Your task to perform on an android device: Go to privacy settings Image 0: 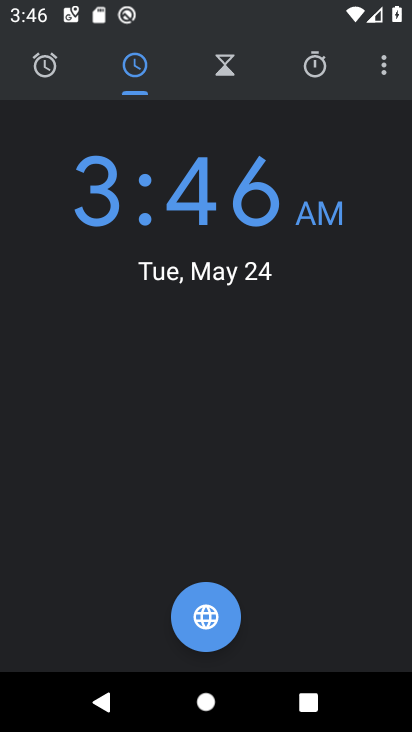
Step 0: press home button
Your task to perform on an android device: Go to privacy settings Image 1: 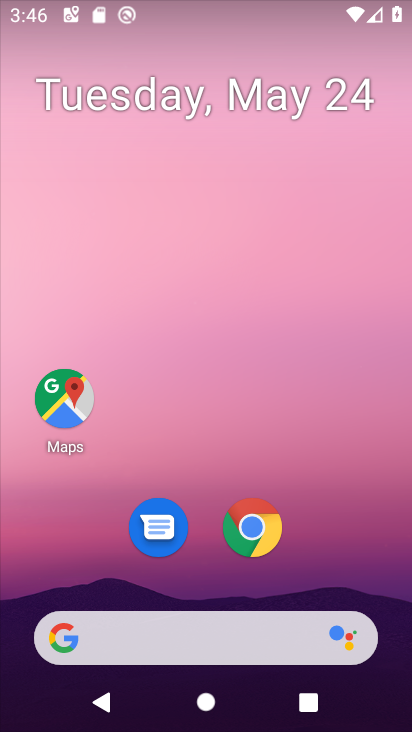
Step 1: drag from (350, 598) to (366, 4)
Your task to perform on an android device: Go to privacy settings Image 2: 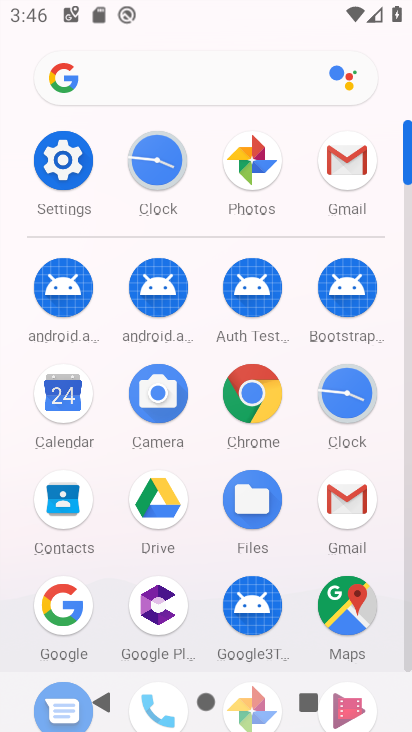
Step 2: click (63, 162)
Your task to perform on an android device: Go to privacy settings Image 3: 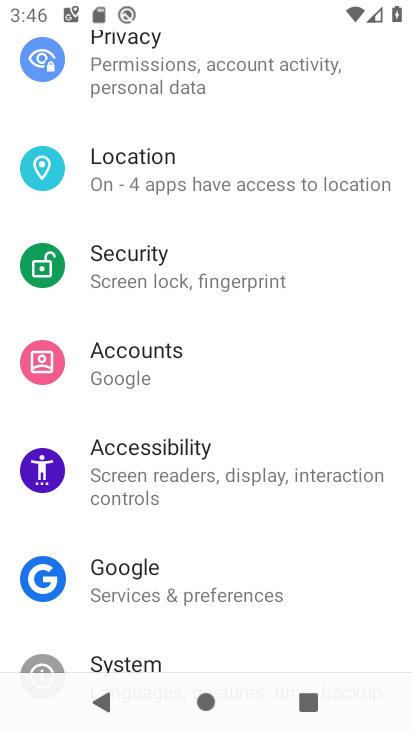
Step 3: drag from (241, 248) to (247, 391)
Your task to perform on an android device: Go to privacy settings Image 4: 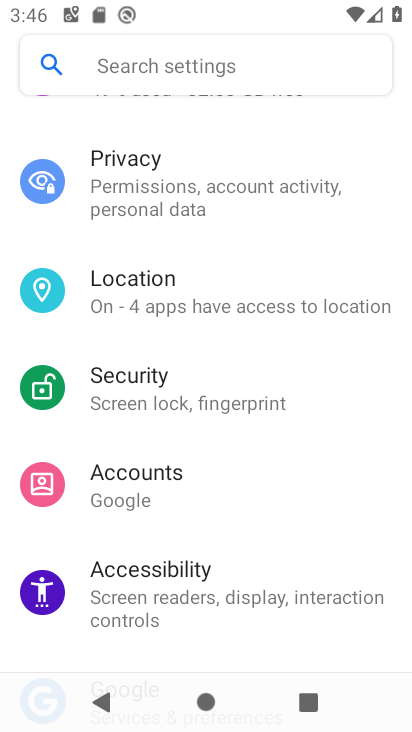
Step 4: click (143, 201)
Your task to perform on an android device: Go to privacy settings Image 5: 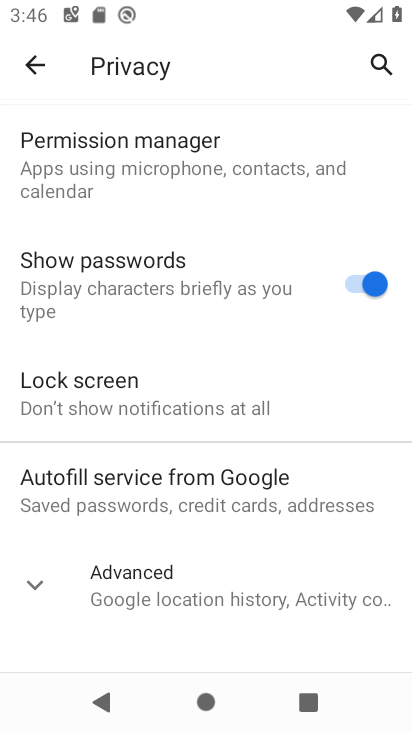
Step 5: task complete